Your task to perform on an android device: Open Reddit.com Image 0: 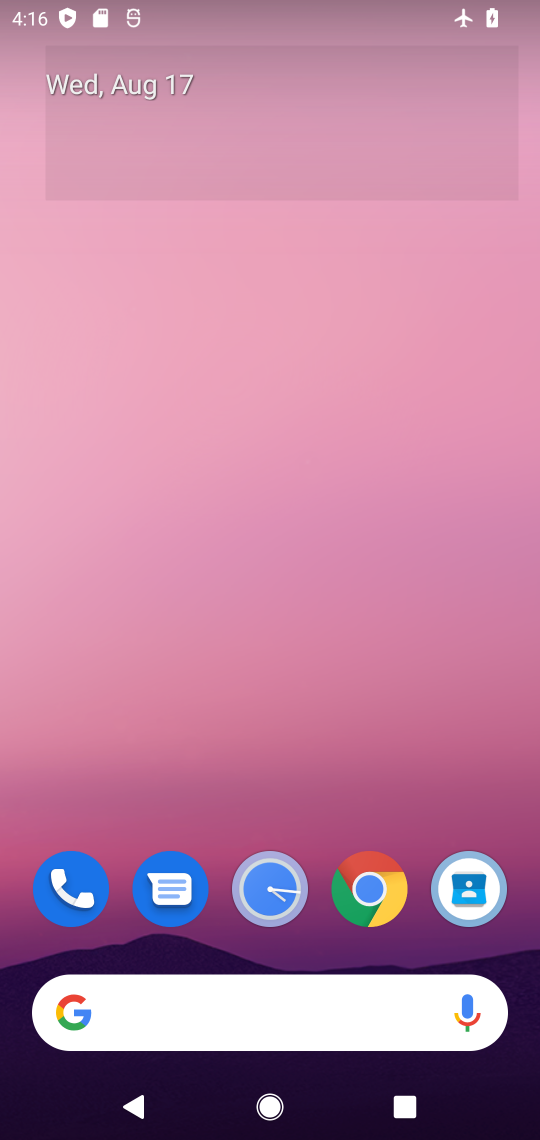
Step 0: click (382, 891)
Your task to perform on an android device: Open Reddit.com Image 1: 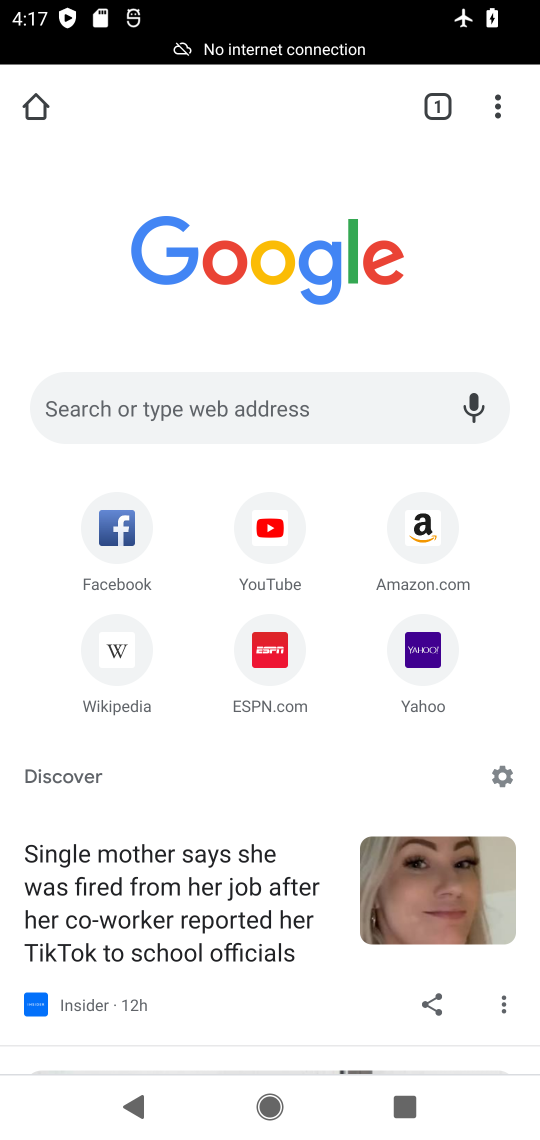
Step 1: click (247, 404)
Your task to perform on an android device: Open Reddit.com Image 2: 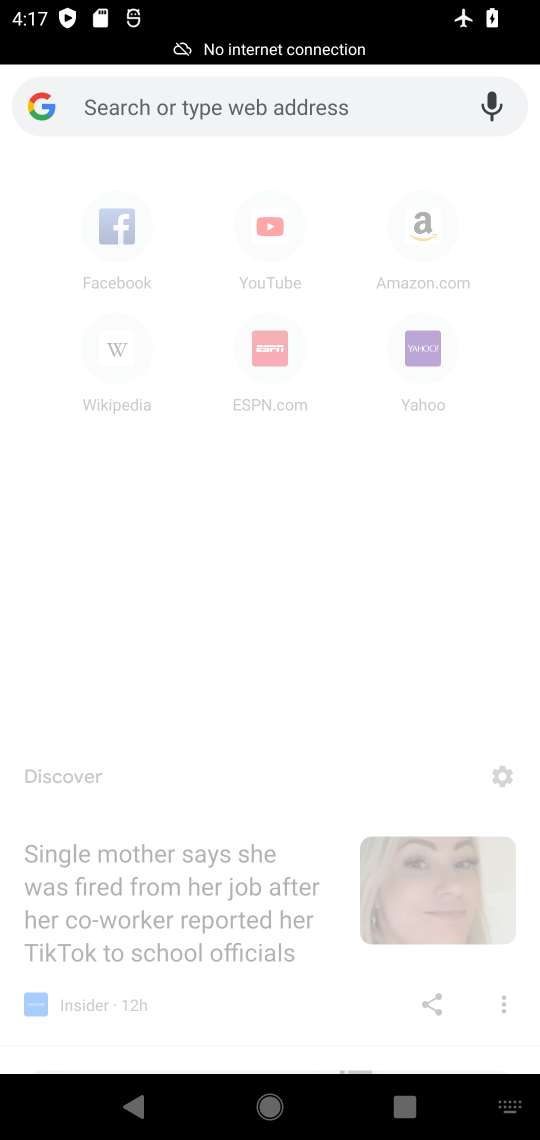
Step 2: type "reddit.com"
Your task to perform on an android device: Open Reddit.com Image 3: 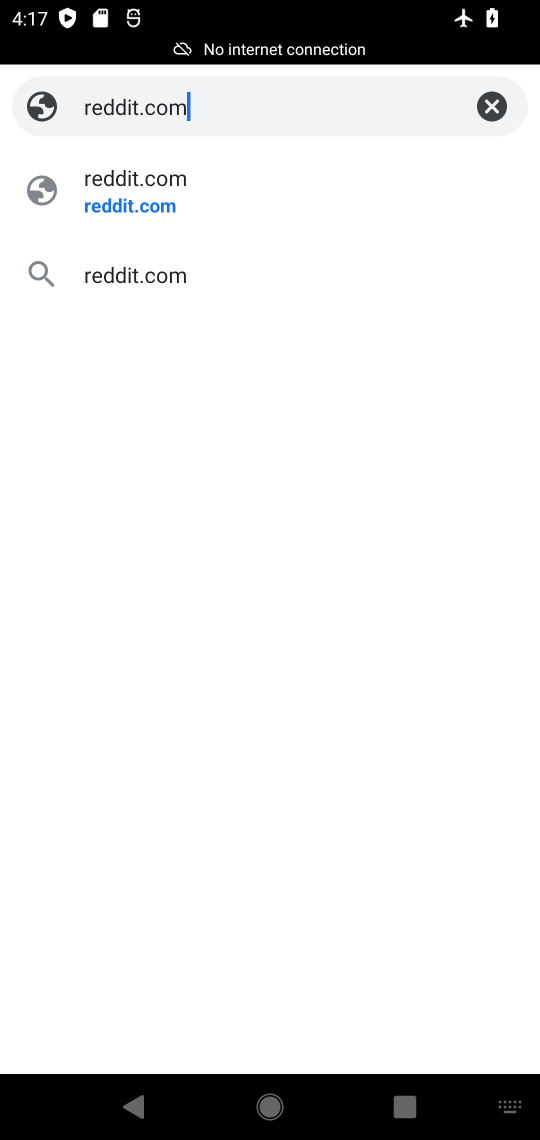
Step 3: click (130, 185)
Your task to perform on an android device: Open Reddit.com Image 4: 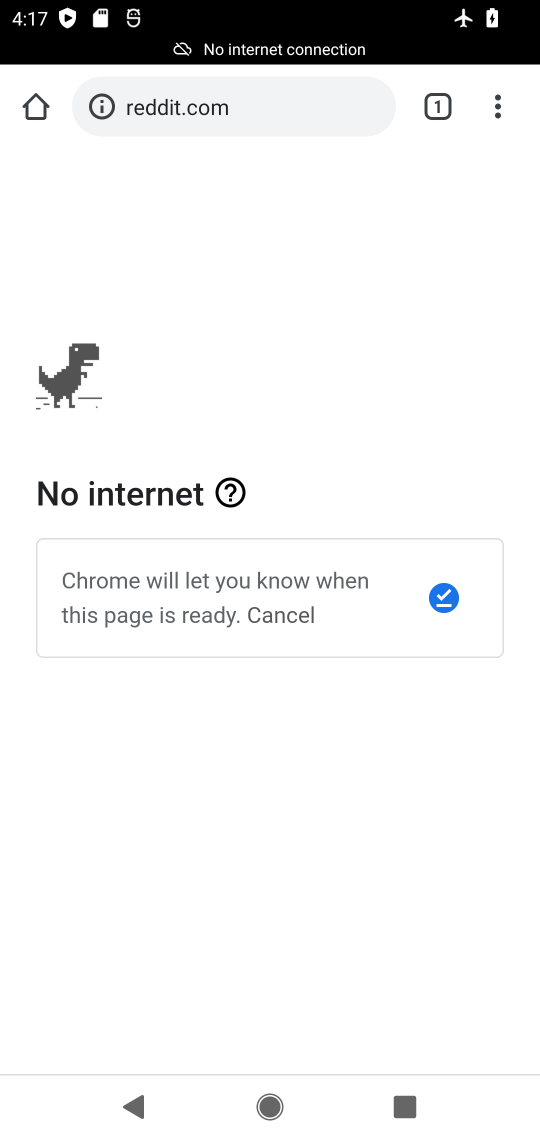
Step 4: task complete